Your task to perform on an android device: What's the weather going to be this weekend? Image 0: 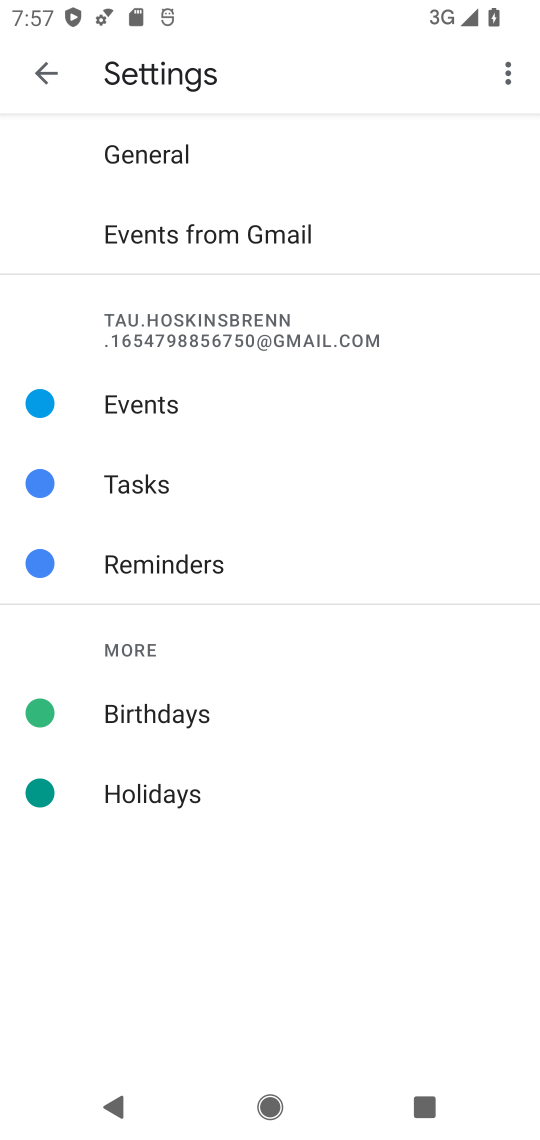
Step 0: press home button
Your task to perform on an android device: What's the weather going to be this weekend? Image 1: 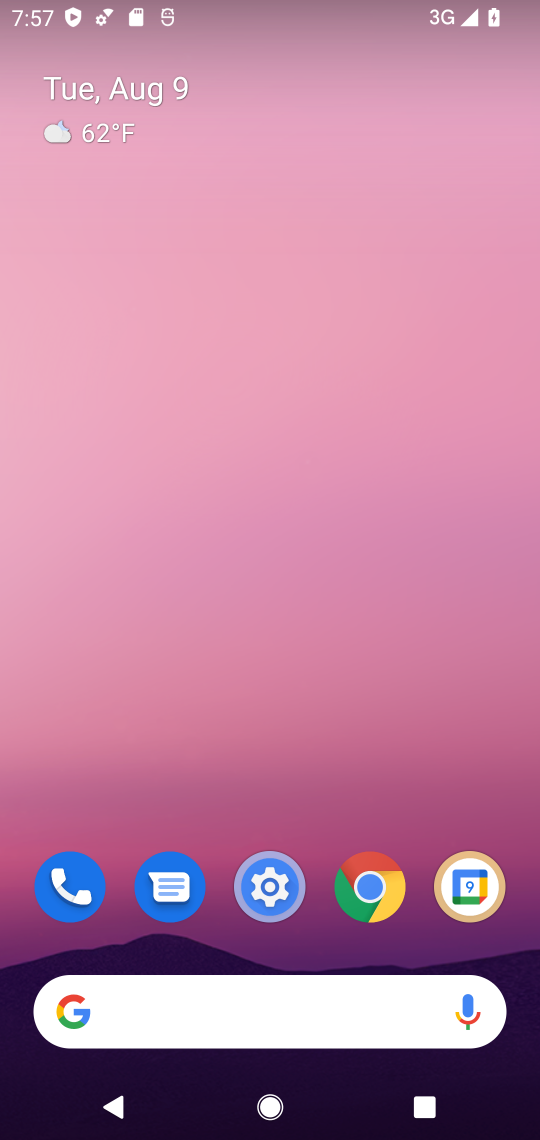
Step 1: click (331, 1025)
Your task to perform on an android device: What's the weather going to be this weekend? Image 2: 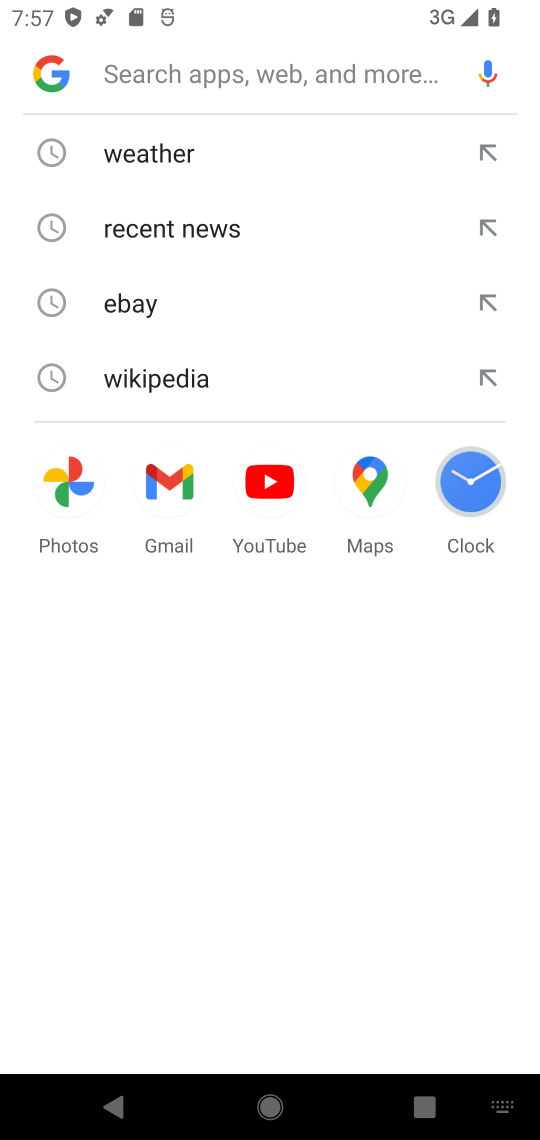
Step 2: click (179, 154)
Your task to perform on an android device: What's the weather going to be this weekend? Image 3: 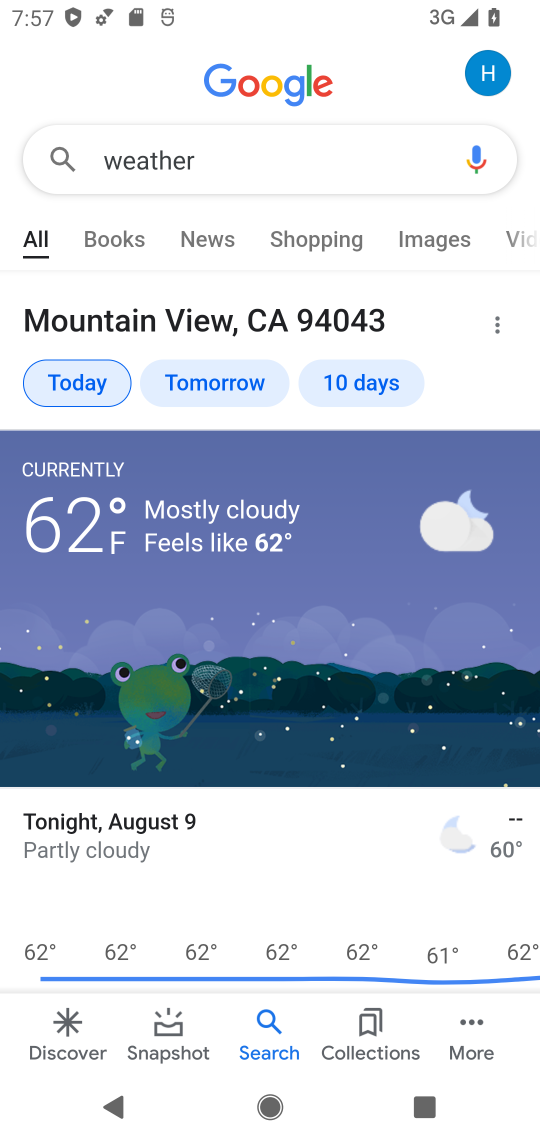
Step 3: click (99, 383)
Your task to perform on an android device: What's the weather going to be this weekend? Image 4: 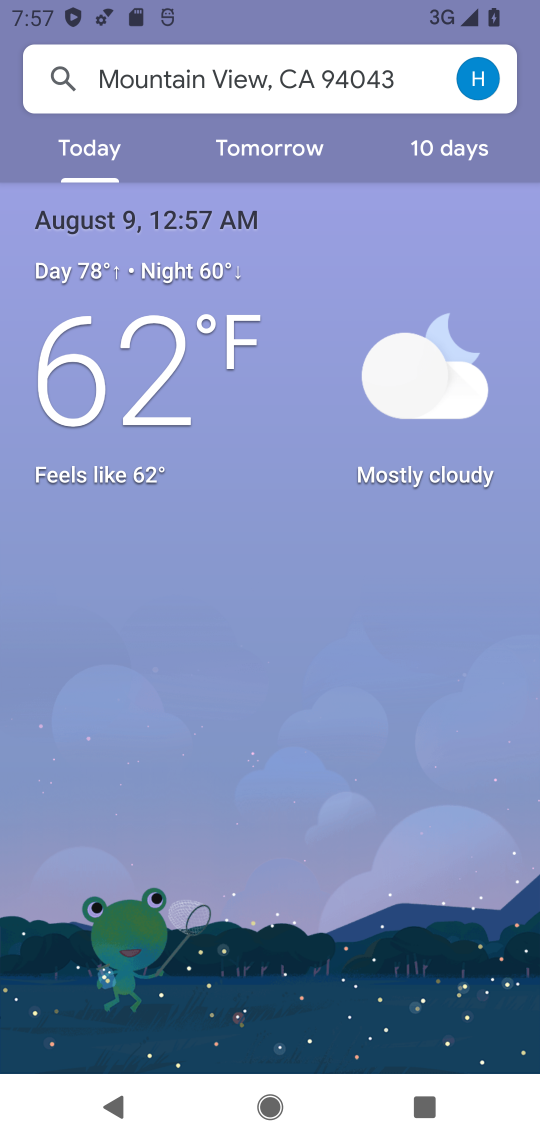
Step 4: click (435, 150)
Your task to perform on an android device: What's the weather going to be this weekend? Image 5: 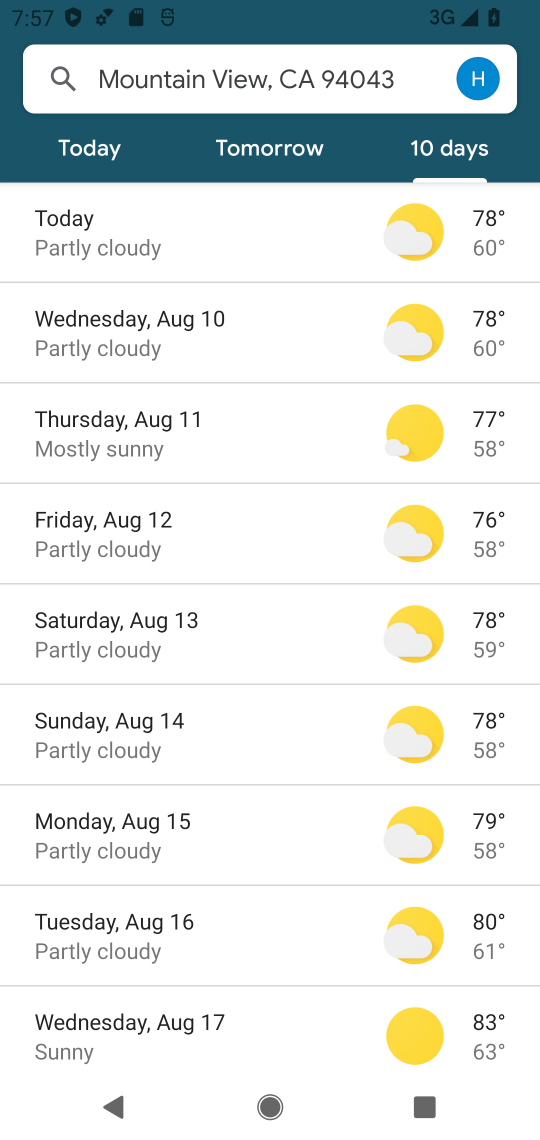
Step 5: click (140, 623)
Your task to perform on an android device: What's the weather going to be this weekend? Image 6: 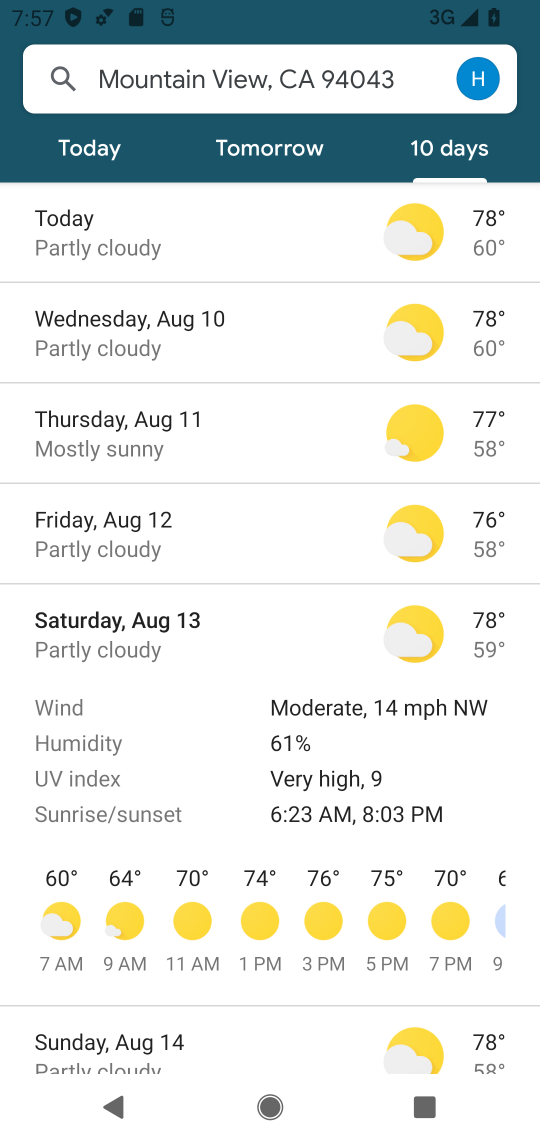
Step 6: task complete